Your task to perform on an android device: turn on sleep mode Image 0: 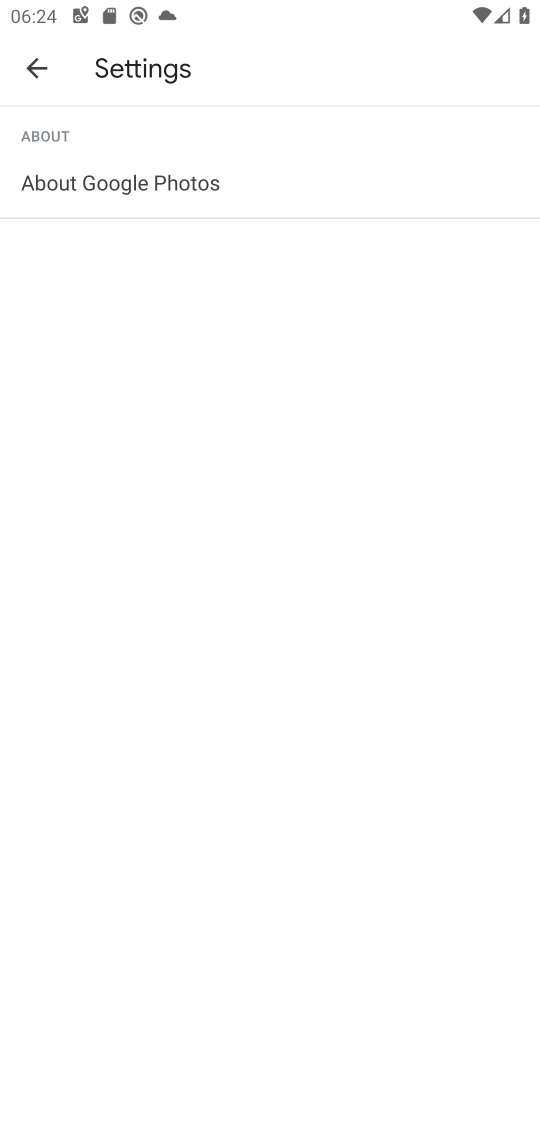
Step 0: press home button
Your task to perform on an android device: turn on sleep mode Image 1: 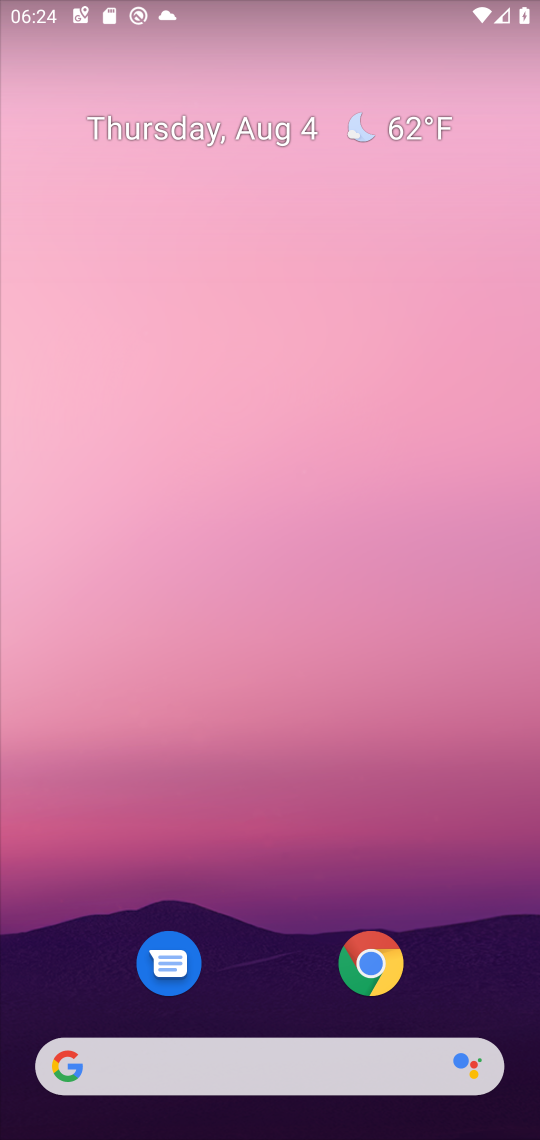
Step 1: drag from (265, 904) to (265, 117)
Your task to perform on an android device: turn on sleep mode Image 2: 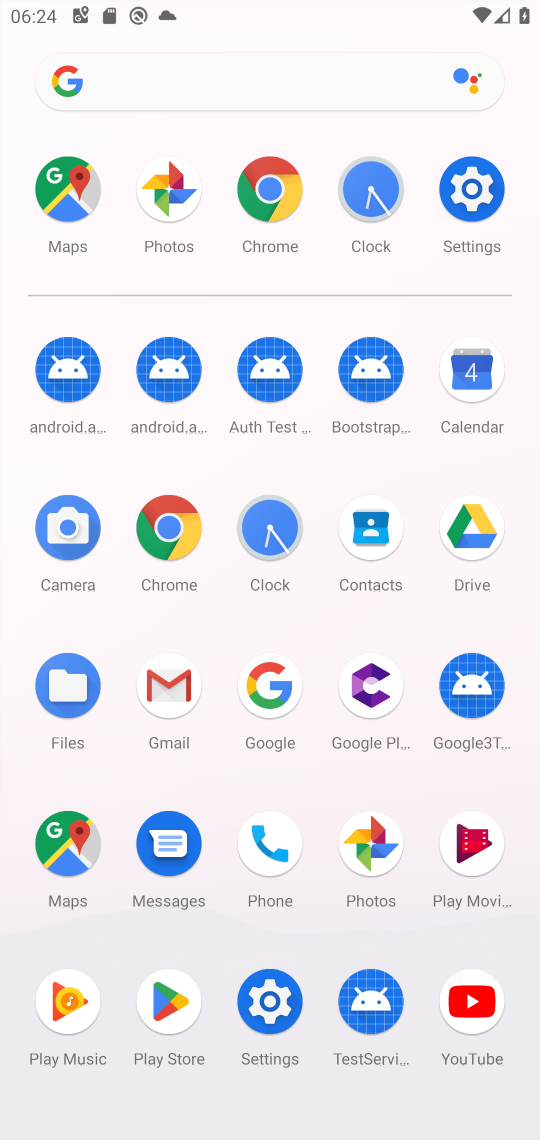
Step 2: click (470, 189)
Your task to perform on an android device: turn on sleep mode Image 3: 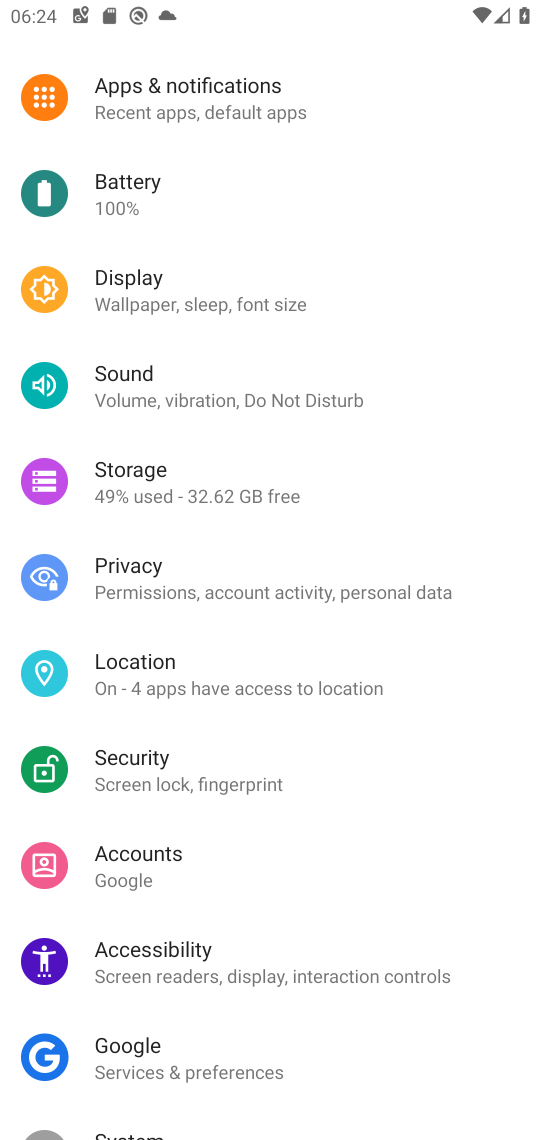
Step 3: click (150, 280)
Your task to perform on an android device: turn on sleep mode Image 4: 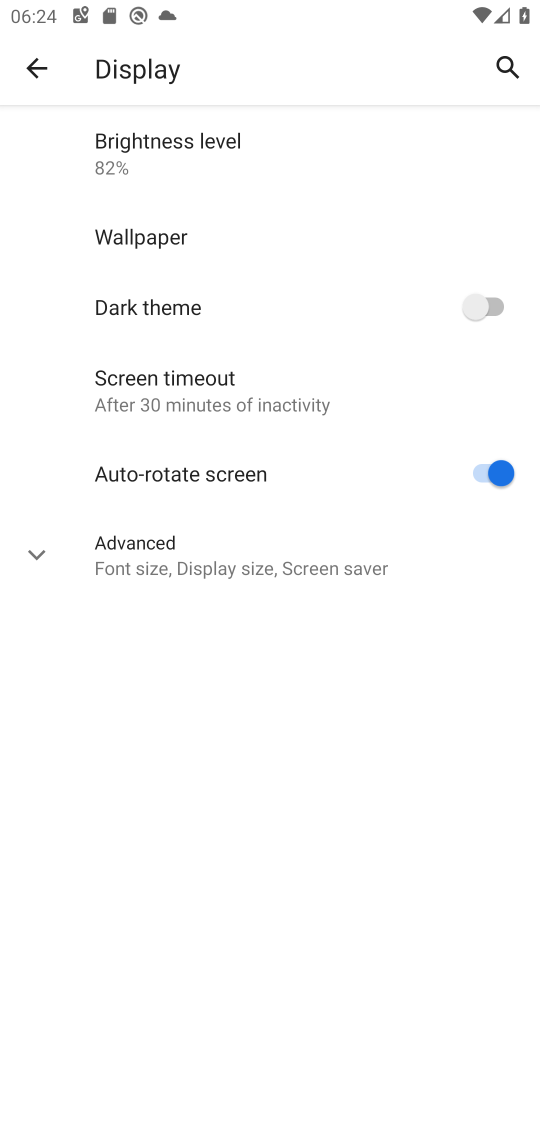
Step 4: task complete